Your task to perform on an android device: install app "DoorDash - Food Delivery" Image 0: 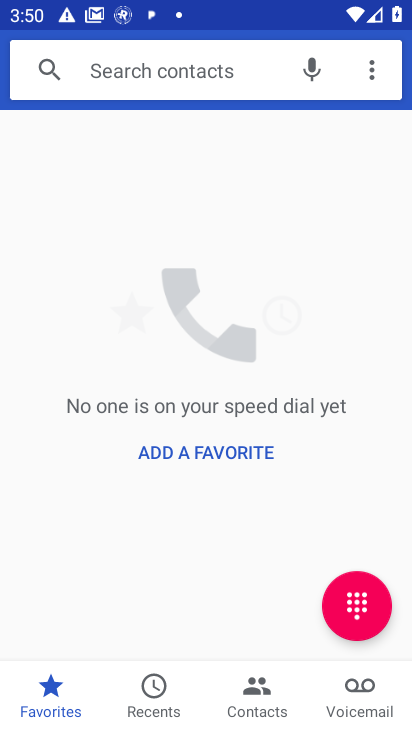
Step 0: press home button
Your task to perform on an android device: install app "DoorDash - Food Delivery" Image 1: 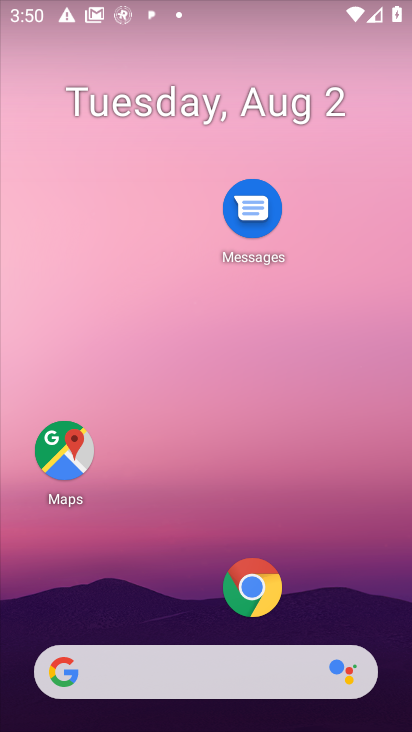
Step 1: drag from (175, 603) to (182, 192)
Your task to perform on an android device: install app "DoorDash - Food Delivery" Image 2: 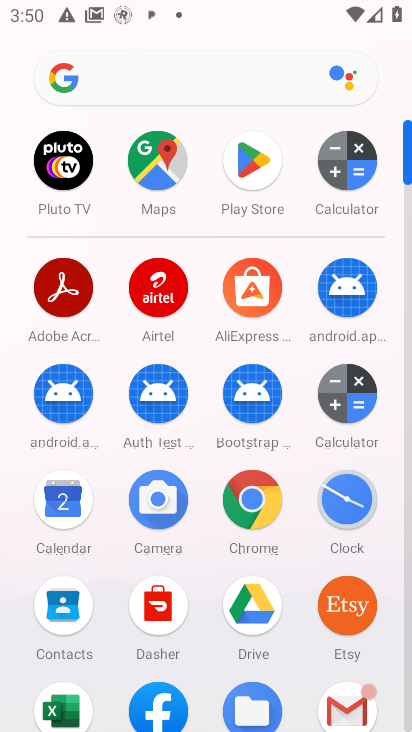
Step 2: click (241, 165)
Your task to perform on an android device: install app "DoorDash - Food Delivery" Image 3: 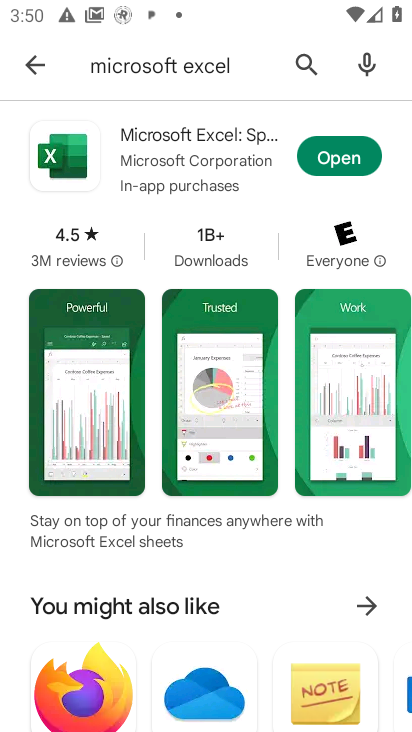
Step 3: click (304, 62)
Your task to perform on an android device: install app "DoorDash - Food Delivery" Image 4: 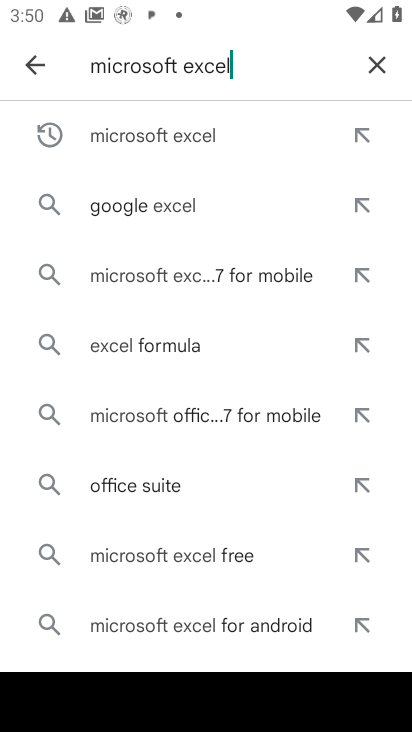
Step 4: click (371, 65)
Your task to perform on an android device: install app "DoorDash - Food Delivery" Image 5: 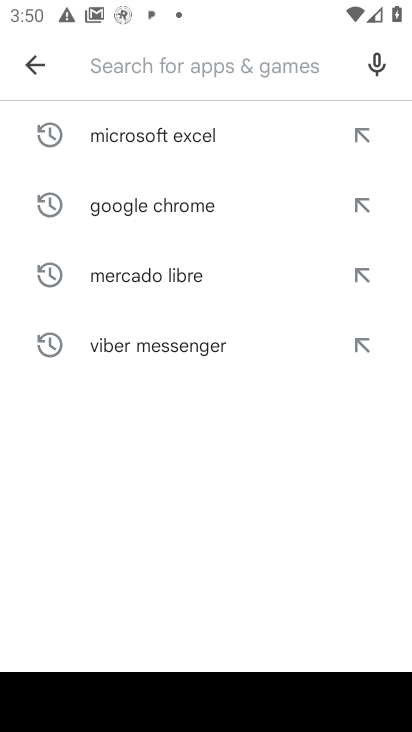
Step 5: type "DoorDash - Food Delivery"
Your task to perform on an android device: install app "DoorDash - Food Delivery" Image 6: 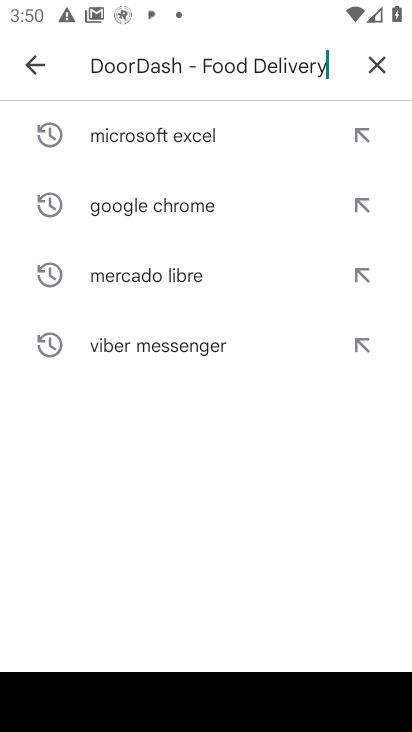
Step 6: type ""
Your task to perform on an android device: install app "DoorDash - Food Delivery" Image 7: 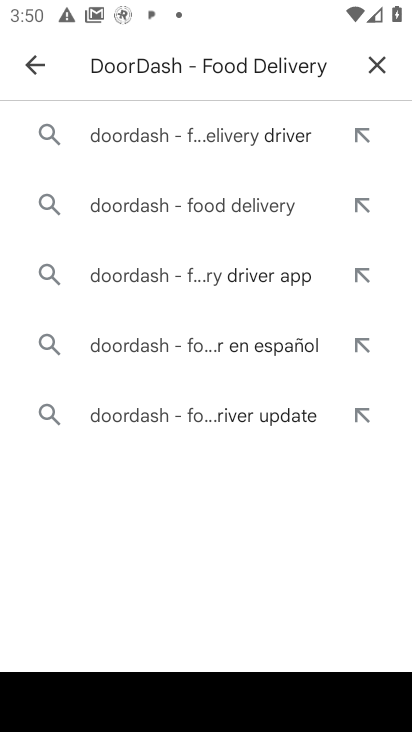
Step 7: click (185, 139)
Your task to perform on an android device: install app "DoorDash - Food Delivery" Image 8: 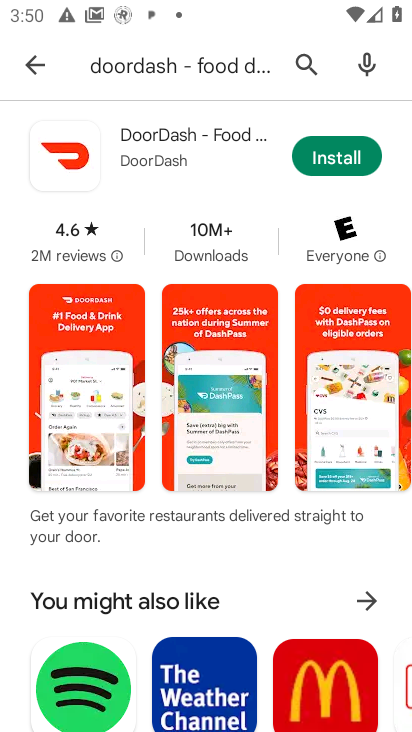
Step 8: click (317, 156)
Your task to perform on an android device: install app "DoorDash - Food Delivery" Image 9: 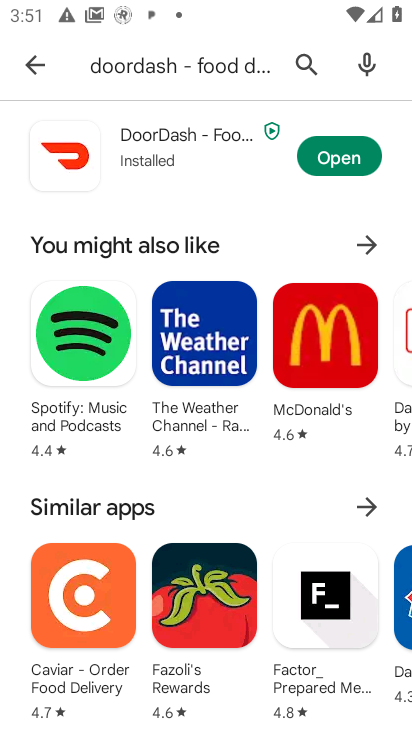
Step 9: task complete